Your task to perform on an android device: choose inbox layout in the gmail app Image 0: 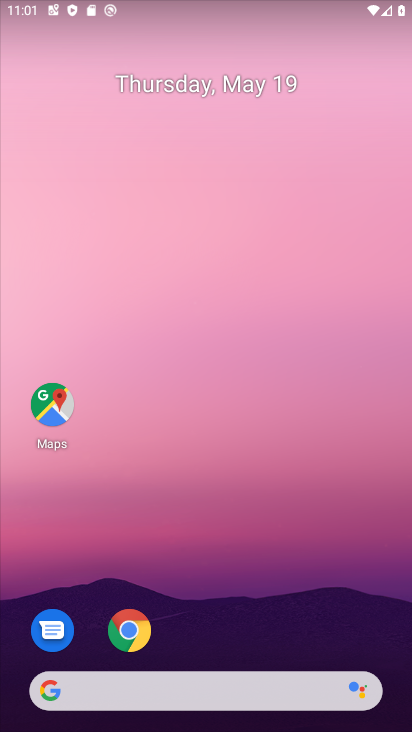
Step 0: drag from (237, 571) to (235, 68)
Your task to perform on an android device: choose inbox layout in the gmail app Image 1: 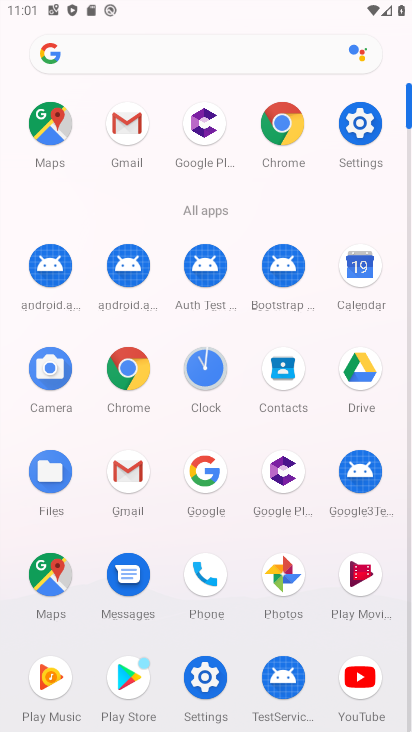
Step 1: click (126, 121)
Your task to perform on an android device: choose inbox layout in the gmail app Image 2: 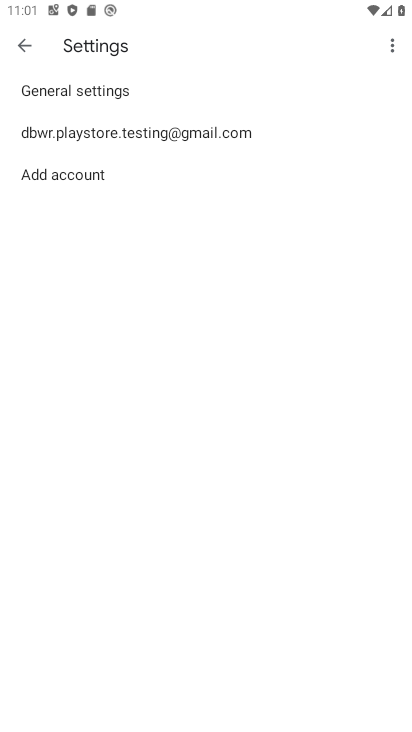
Step 2: click (119, 133)
Your task to perform on an android device: choose inbox layout in the gmail app Image 3: 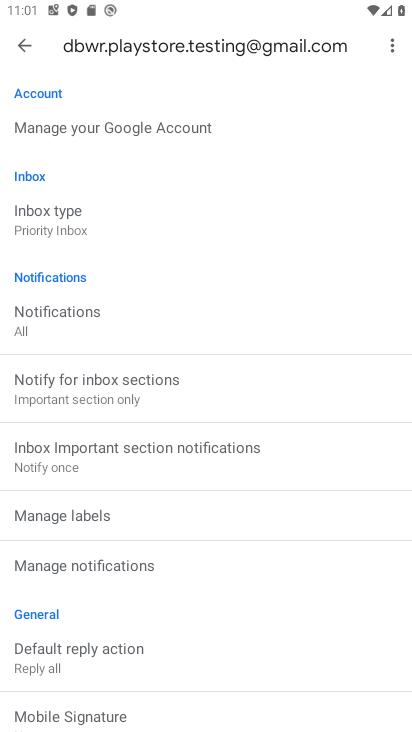
Step 3: click (58, 230)
Your task to perform on an android device: choose inbox layout in the gmail app Image 4: 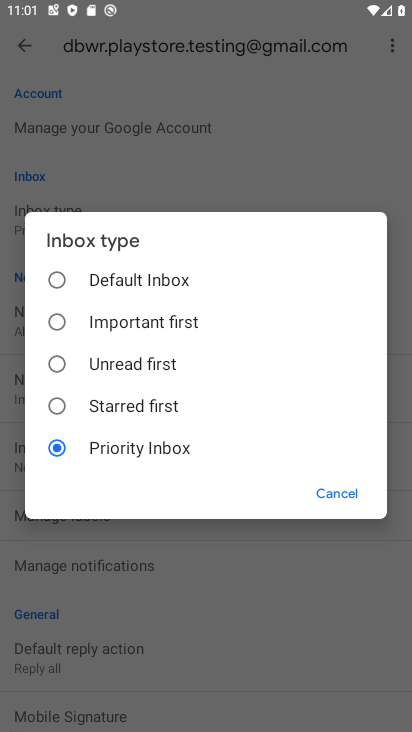
Step 4: click (54, 317)
Your task to perform on an android device: choose inbox layout in the gmail app Image 5: 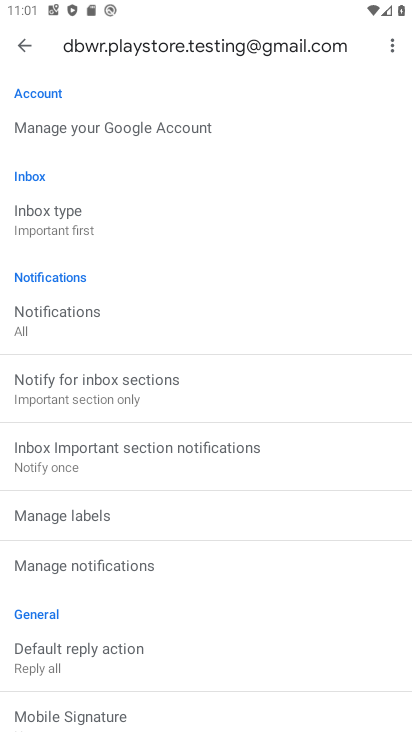
Step 5: task complete